Your task to perform on an android device: remove spam from my inbox in the gmail app Image 0: 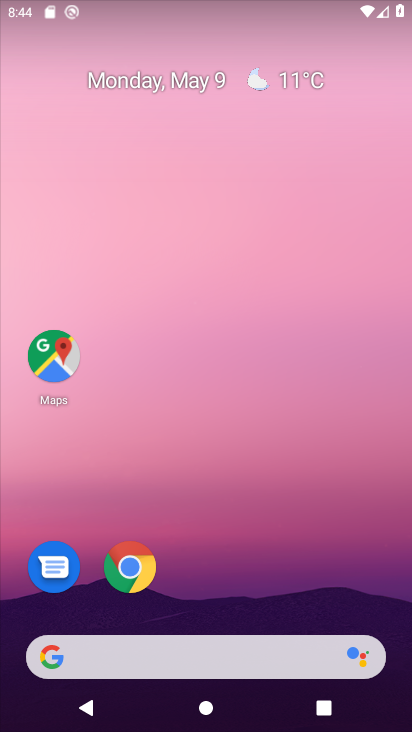
Step 0: drag from (329, 570) to (273, 60)
Your task to perform on an android device: remove spam from my inbox in the gmail app Image 1: 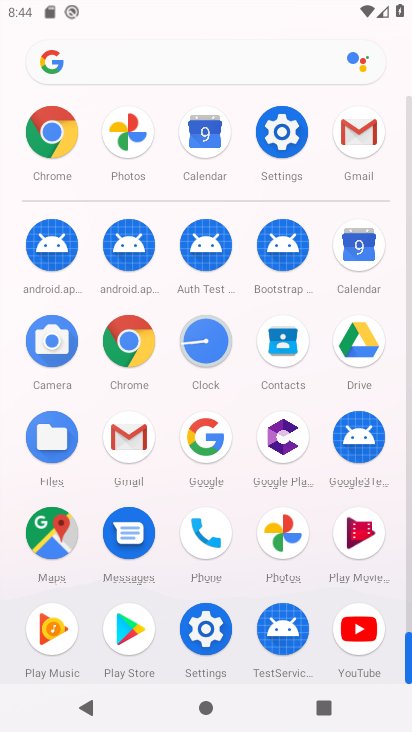
Step 1: click (363, 131)
Your task to perform on an android device: remove spam from my inbox in the gmail app Image 2: 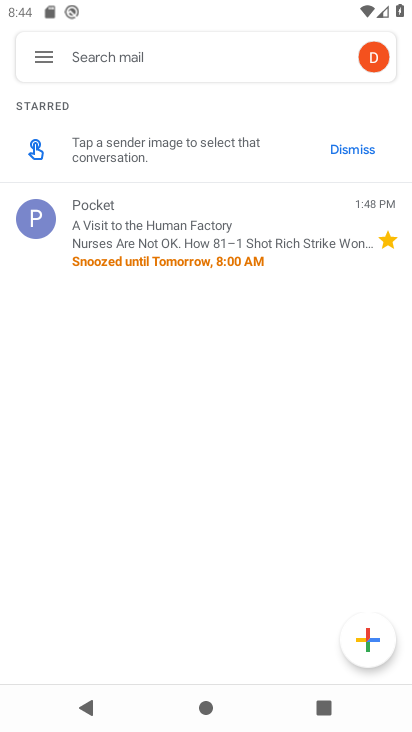
Step 2: click (46, 51)
Your task to perform on an android device: remove spam from my inbox in the gmail app Image 3: 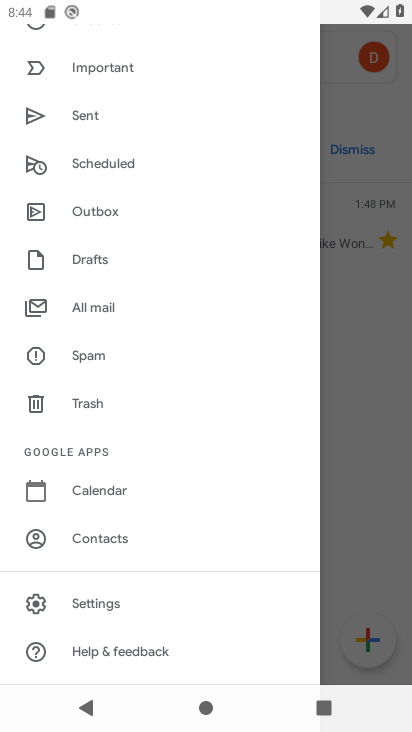
Step 3: click (91, 346)
Your task to perform on an android device: remove spam from my inbox in the gmail app Image 4: 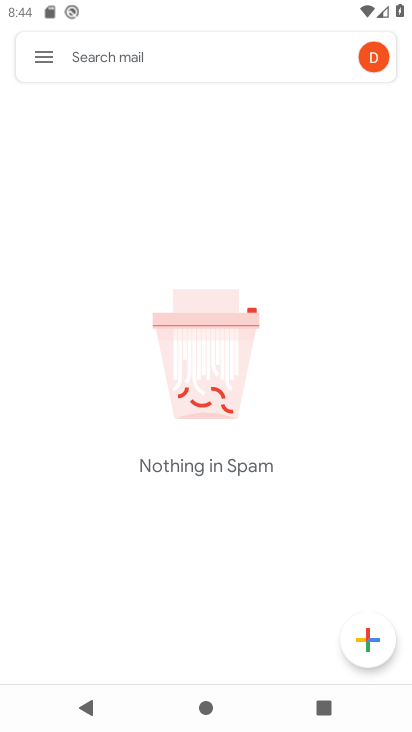
Step 4: task complete